Your task to perform on an android device: turn on wifi Image 0: 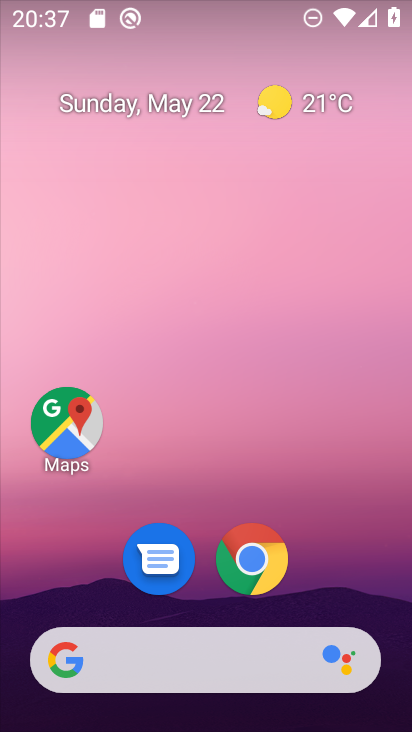
Step 0: drag from (326, 671) to (208, 308)
Your task to perform on an android device: turn on wifi Image 1: 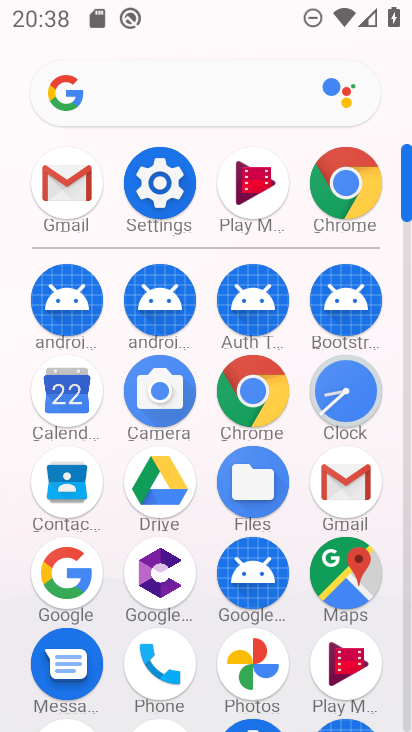
Step 1: click (149, 172)
Your task to perform on an android device: turn on wifi Image 2: 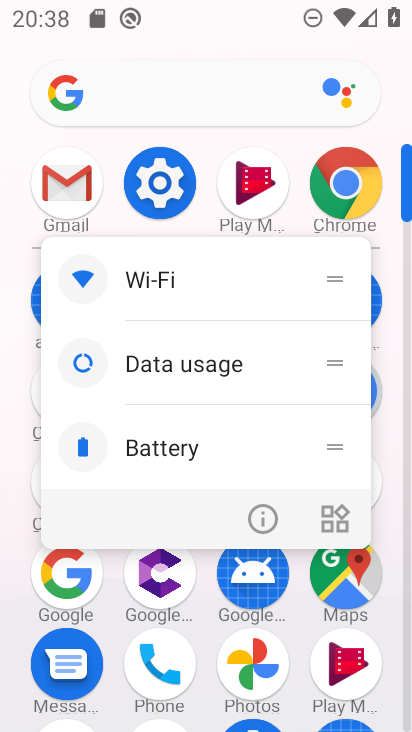
Step 2: click (185, 171)
Your task to perform on an android device: turn on wifi Image 3: 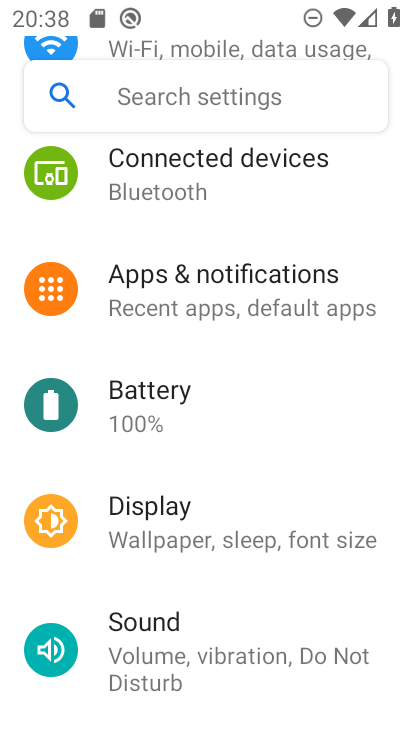
Step 3: drag from (178, 209) to (213, 375)
Your task to perform on an android device: turn on wifi Image 4: 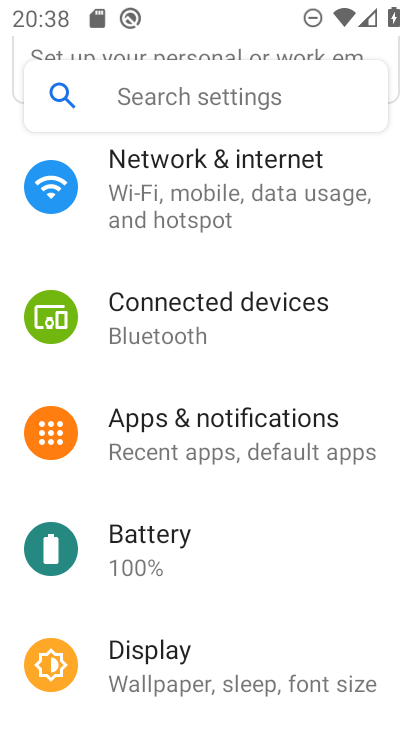
Step 4: click (206, 213)
Your task to perform on an android device: turn on wifi Image 5: 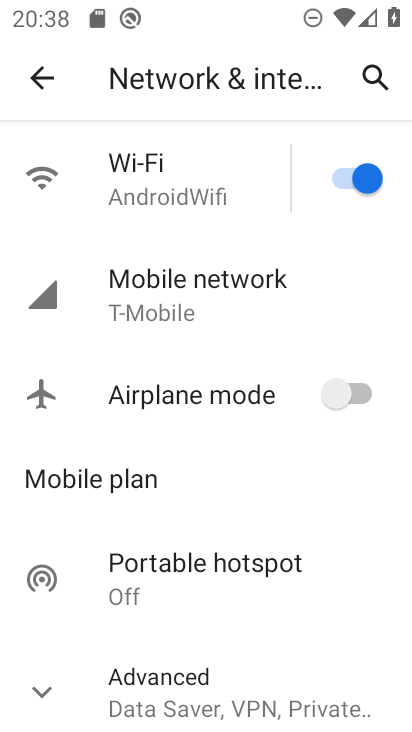
Step 5: click (351, 170)
Your task to perform on an android device: turn on wifi Image 6: 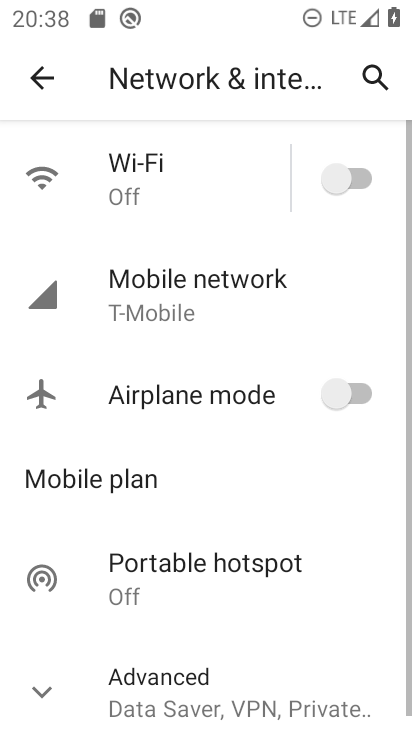
Step 6: click (351, 170)
Your task to perform on an android device: turn on wifi Image 7: 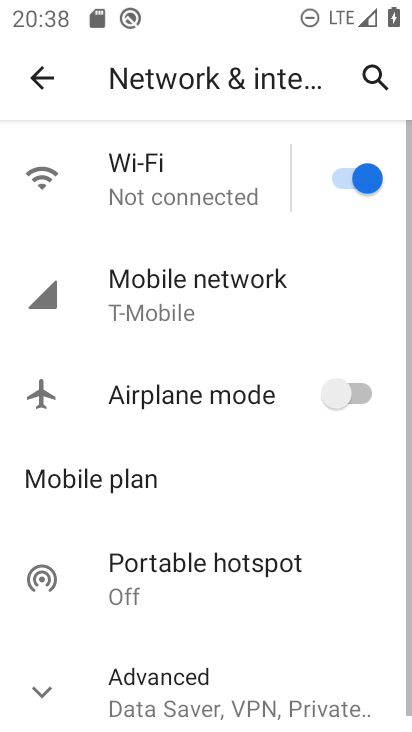
Step 7: task complete